Your task to perform on an android device: What is the recent news? Image 0: 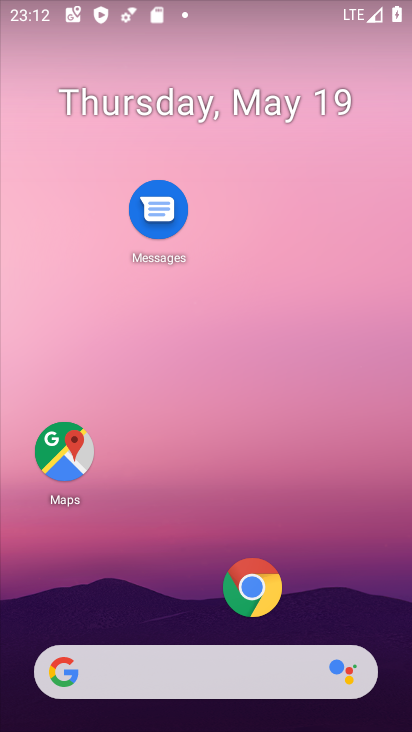
Step 0: click (283, 676)
Your task to perform on an android device: What is the recent news? Image 1: 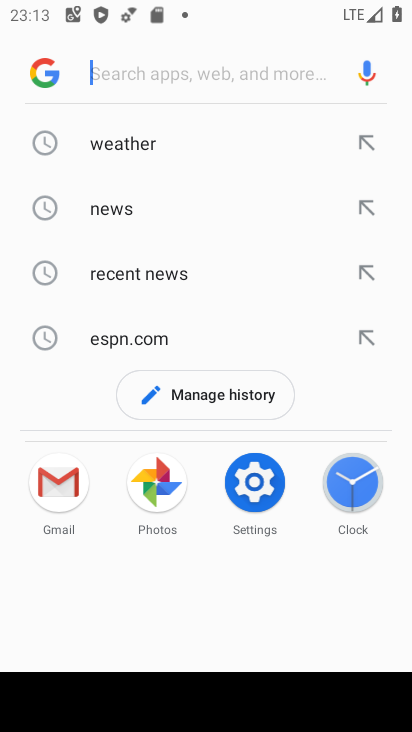
Step 1: press home button
Your task to perform on an android device: What is the recent news? Image 2: 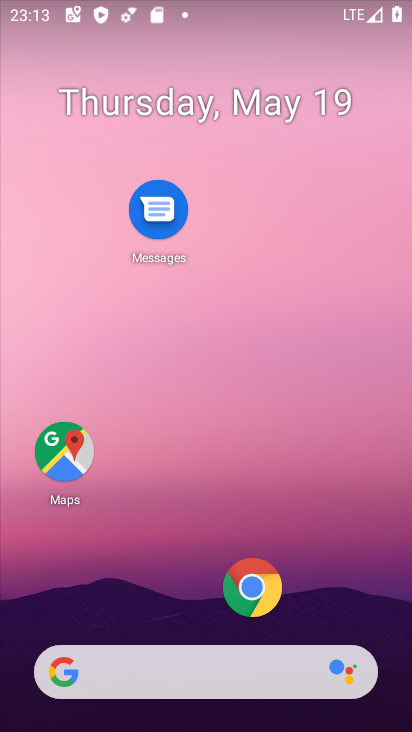
Step 2: click (147, 653)
Your task to perform on an android device: What is the recent news? Image 3: 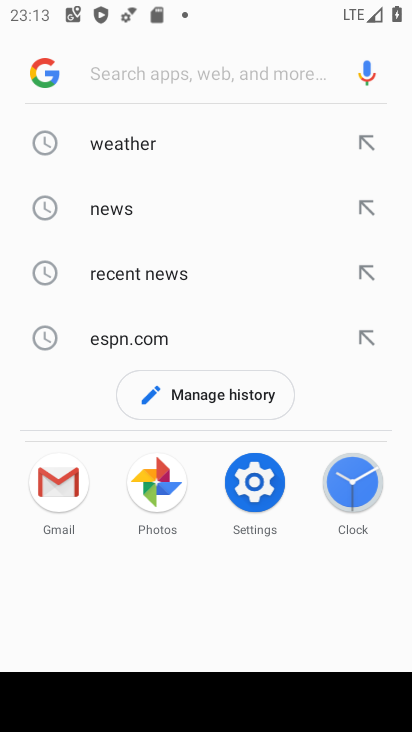
Step 3: click (177, 298)
Your task to perform on an android device: What is the recent news? Image 4: 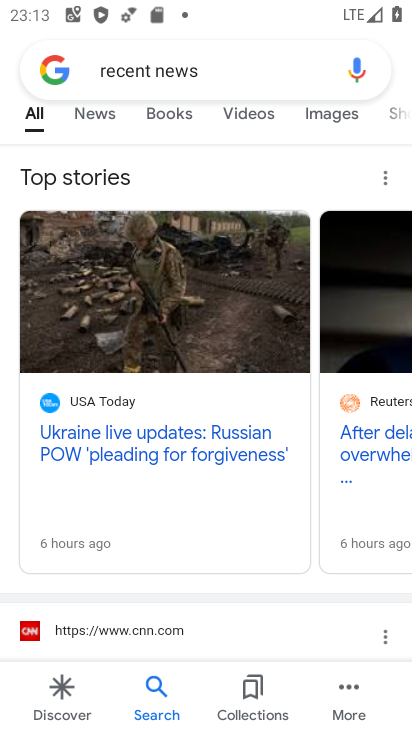
Step 4: task complete